Your task to perform on an android device: What's the weather? Image 0: 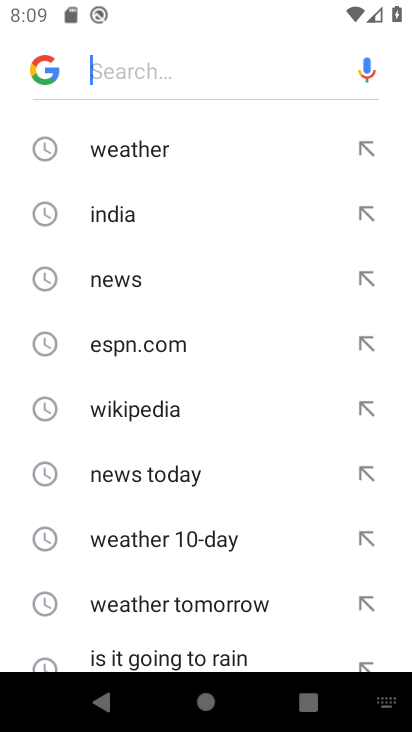
Step 0: click (116, 150)
Your task to perform on an android device: What's the weather? Image 1: 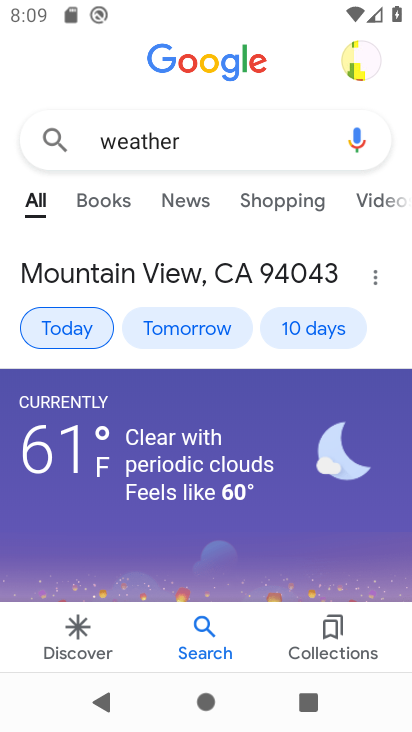
Step 1: task complete